Your task to perform on an android device: Open the map Image 0: 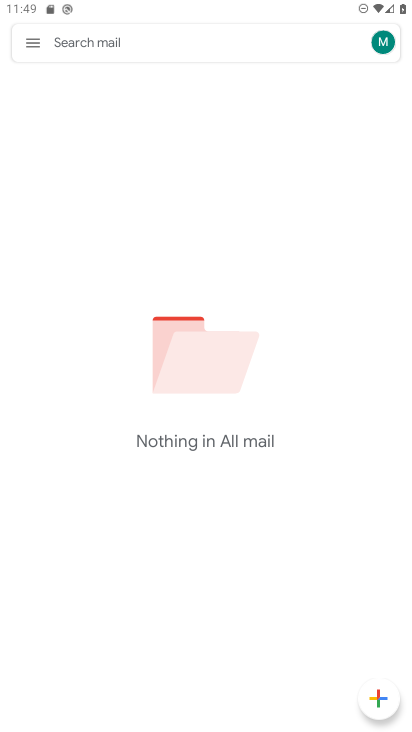
Step 0: press home button
Your task to perform on an android device: Open the map Image 1: 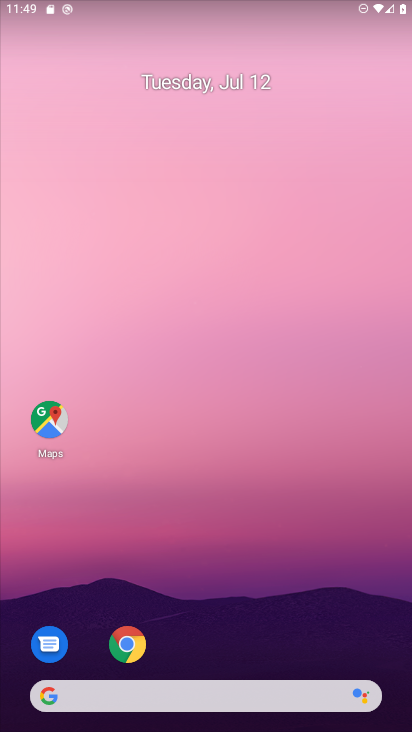
Step 1: click (57, 418)
Your task to perform on an android device: Open the map Image 2: 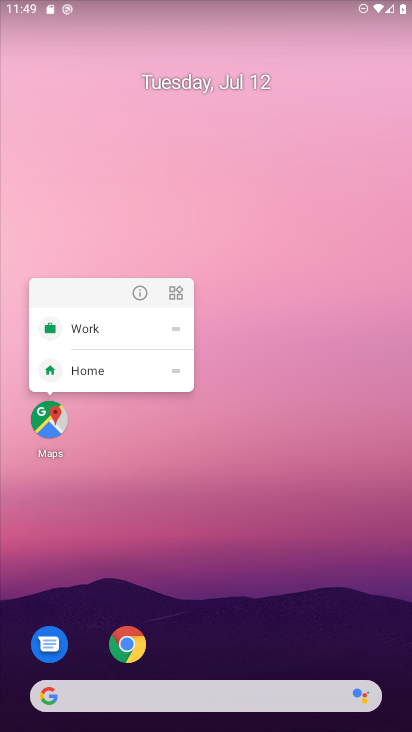
Step 2: click (57, 419)
Your task to perform on an android device: Open the map Image 3: 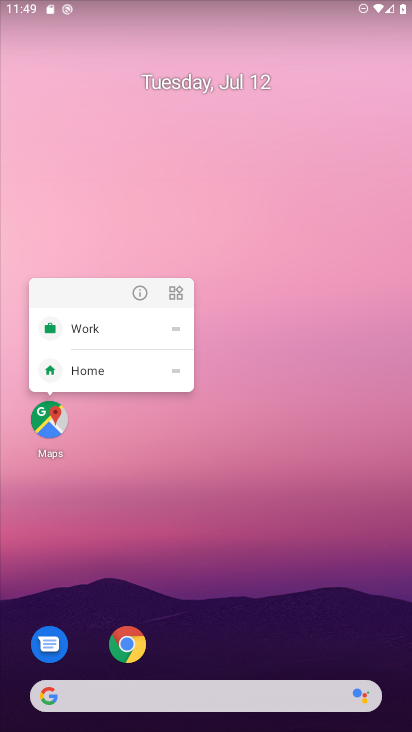
Step 3: click (57, 419)
Your task to perform on an android device: Open the map Image 4: 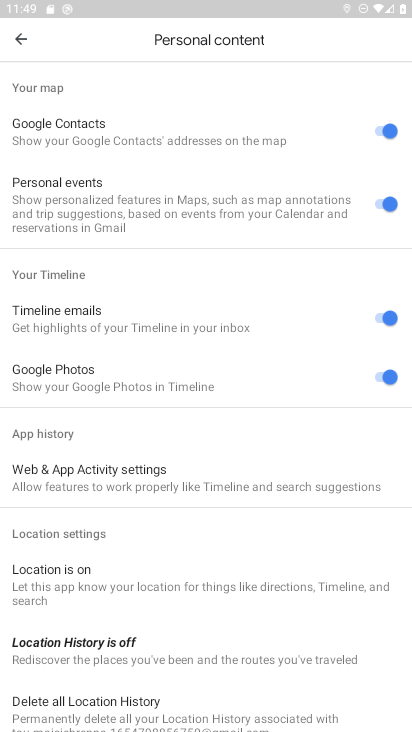
Step 4: click (21, 37)
Your task to perform on an android device: Open the map Image 5: 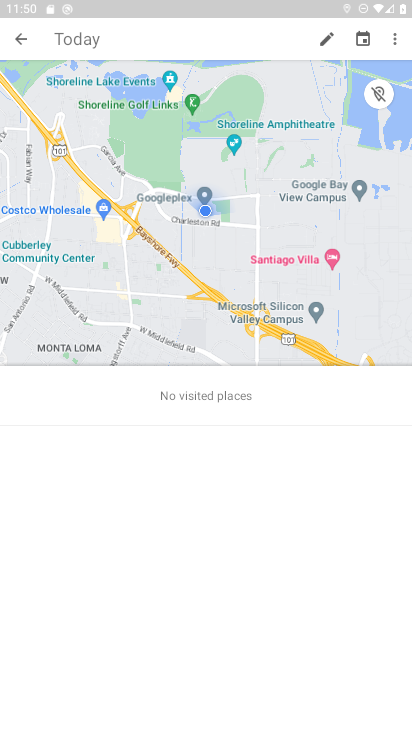
Step 5: click (21, 44)
Your task to perform on an android device: Open the map Image 6: 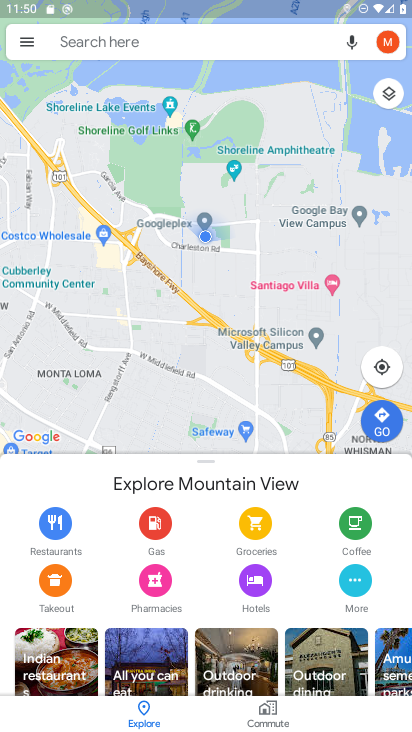
Step 6: task complete